Your task to perform on an android device: What is the recent news? Image 0: 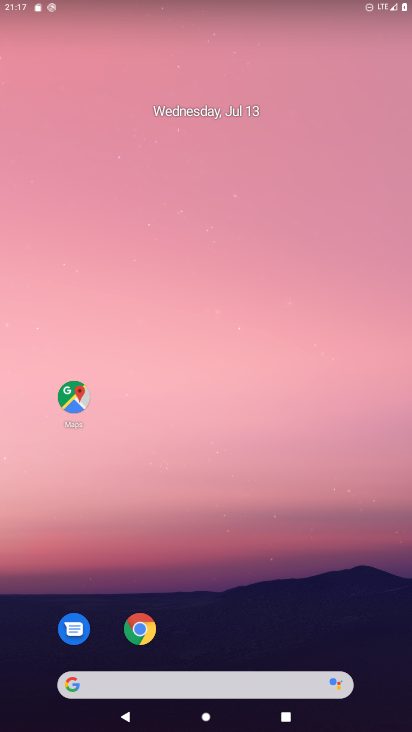
Step 0: click (135, 632)
Your task to perform on an android device: What is the recent news? Image 1: 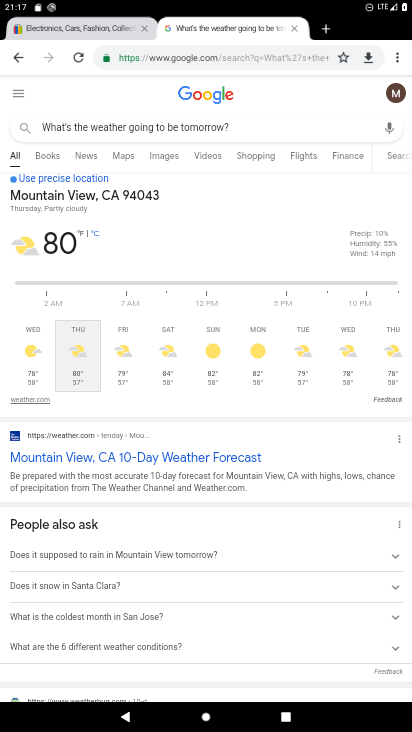
Step 1: click (283, 51)
Your task to perform on an android device: What is the recent news? Image 2: 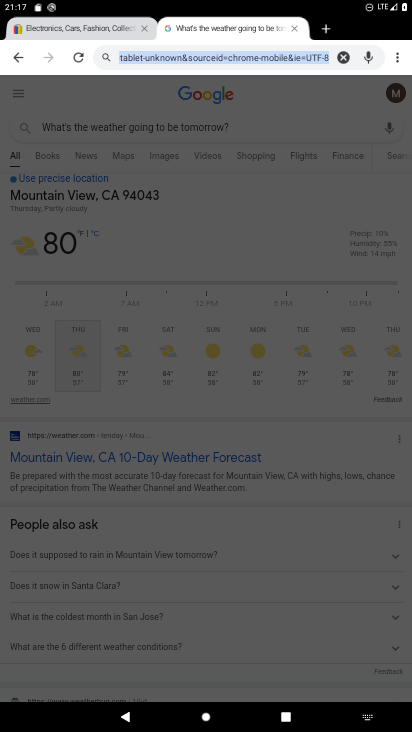
Step 2: click (347, 55)
Your task to perform on an android device: What is the recent news? Image 3: 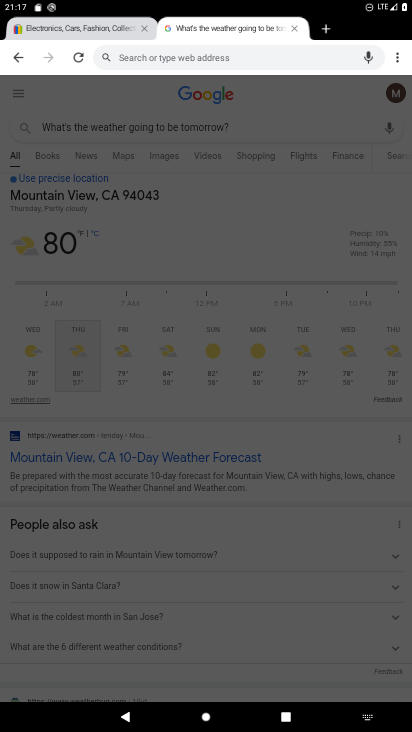
Step 3: type "What is the recent news?"
Your task to perform on an android device: What is the recent news? Image 4: 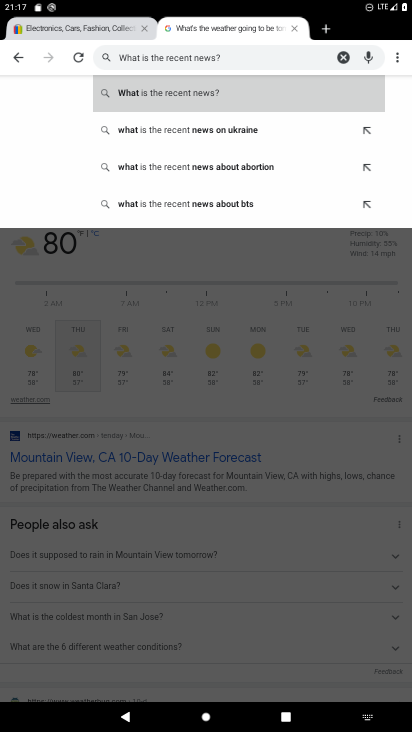
Step 4: click (187, 96)
Your task to perform on an android device: What is the recent news? Image 5: 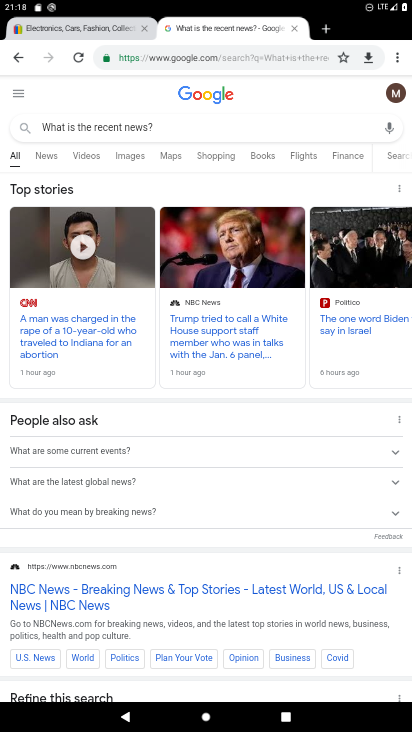
Step 5: click (39, 154)
Your task to perform on an android device: What is the recent news? Image 6: 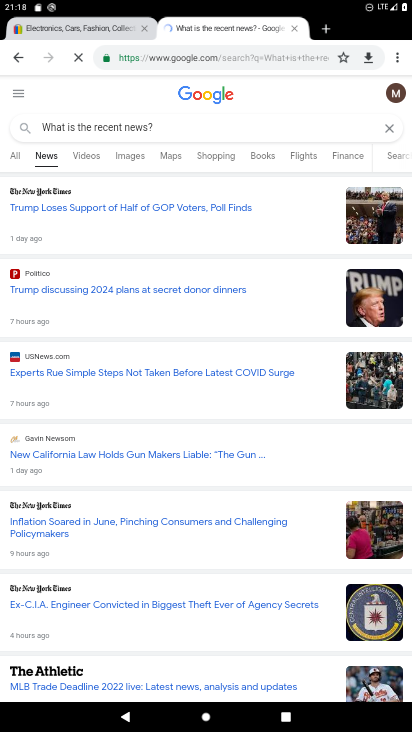
Step 6: task complete